Your task to perform on an android device: Go to sound settings Image 0: 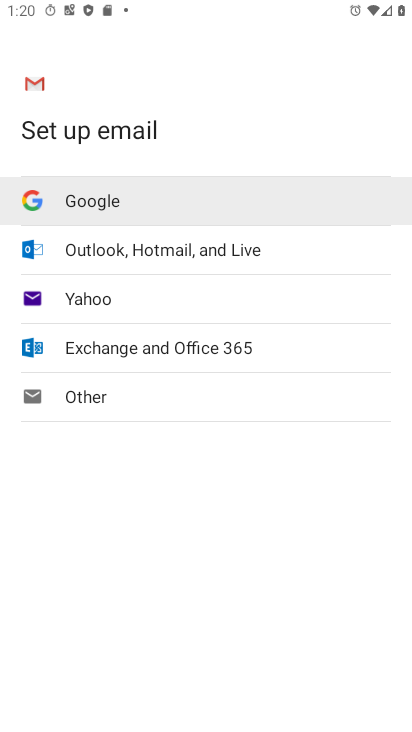
Step 0: press home button
Your task to perform on an android device: Go to sound settings Image 1: 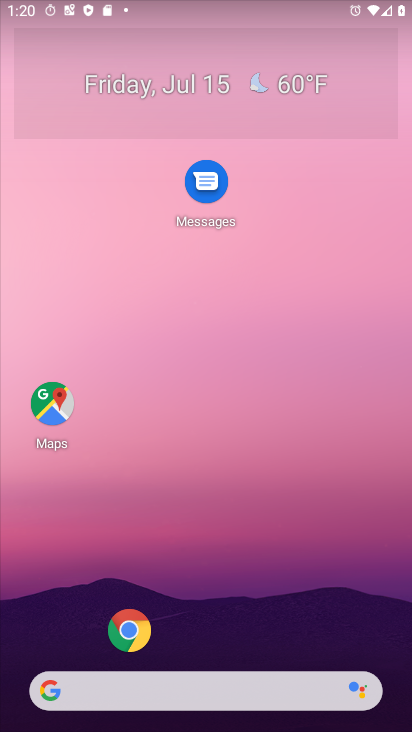
Step 1: drag from (53, 588) to (123, 301)
Your task to perform on an android device: Go to sound settings Image 2: 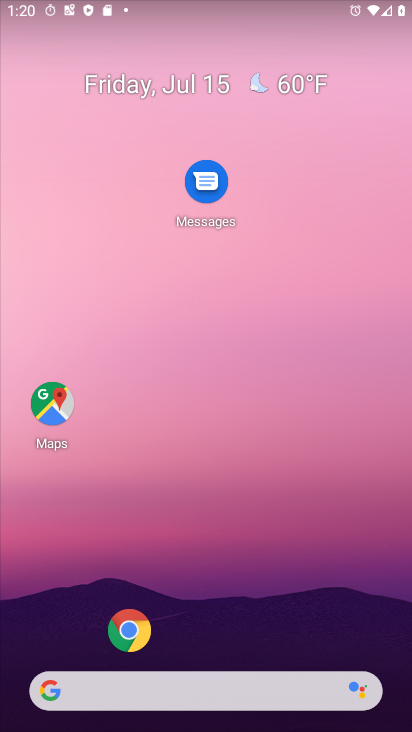
Step 2: drag from (46, 605) to (207, 96)
Your task to perform on an android device: Go to sound settings Image 3: 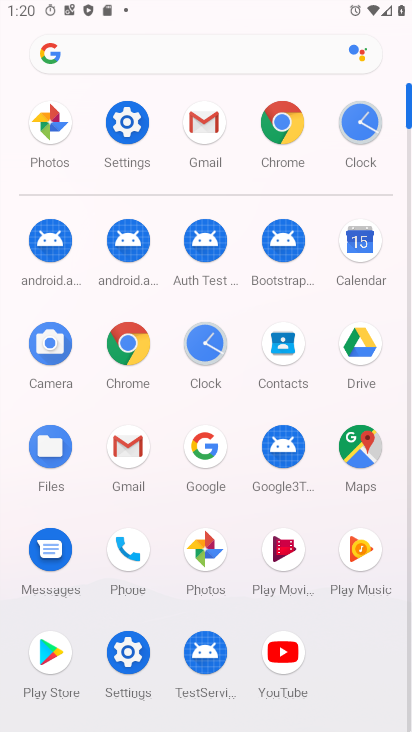
Step 3: click (137, 663)
Your task to perform on an android device: Go to sound settings Image 4: 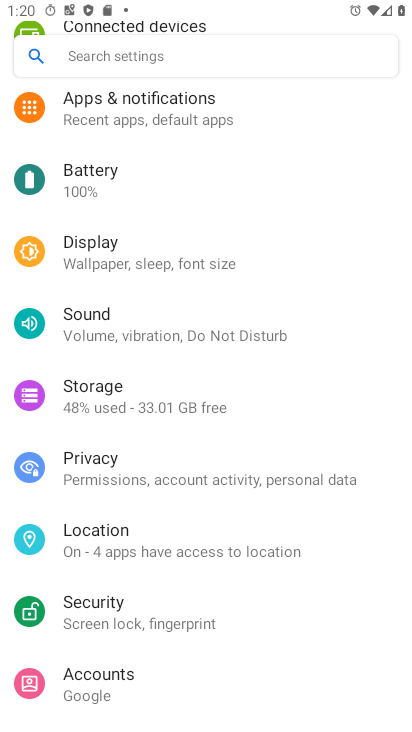
Step 4: click (146, 324)
Your task to perform on an android device: Go to sound settings Image 5: 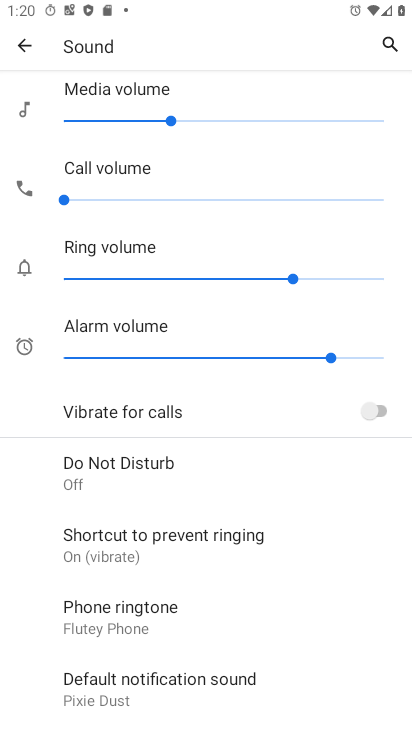
Step 5: task complete